Your task to perform on an android device: Turn on the flashlight Image 0: 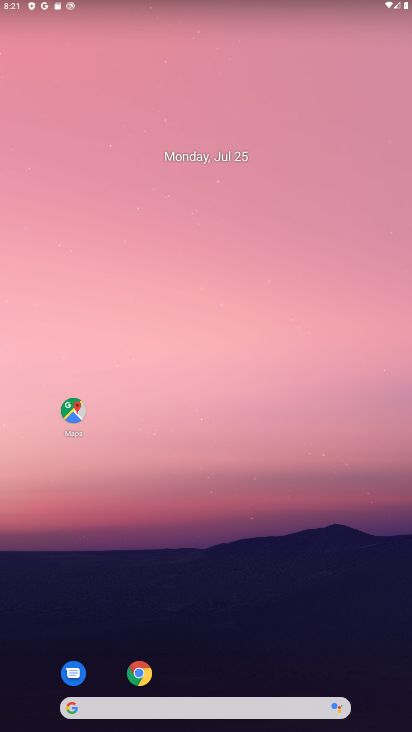
Step 0: drag from (227, 679) to (227, 31)
Your task to perform on an android device: Turn on the flashlight Image 1: 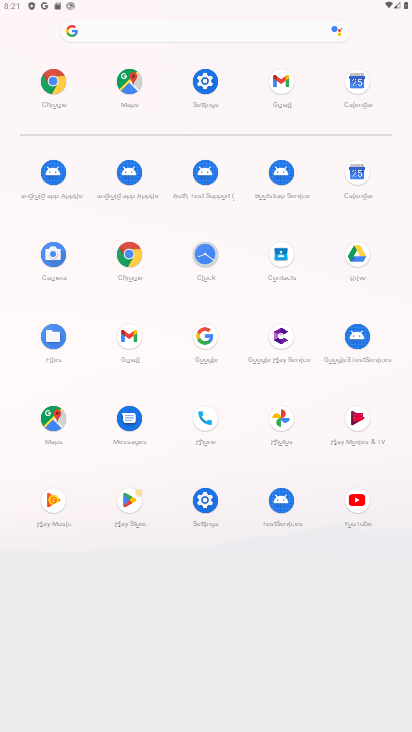
Step 1: click (209, 93)
Your task to perform on an android device: Turn on the flashlight Image 2: 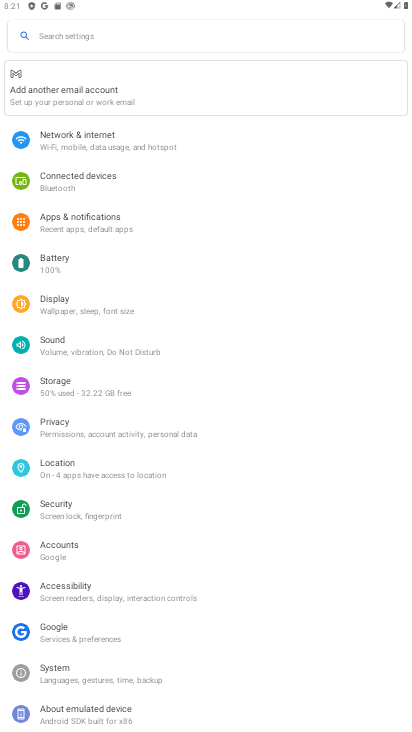
Step 2: task complete